Your task to perform on an android device: open a bookmark in the chrome app Image 0: 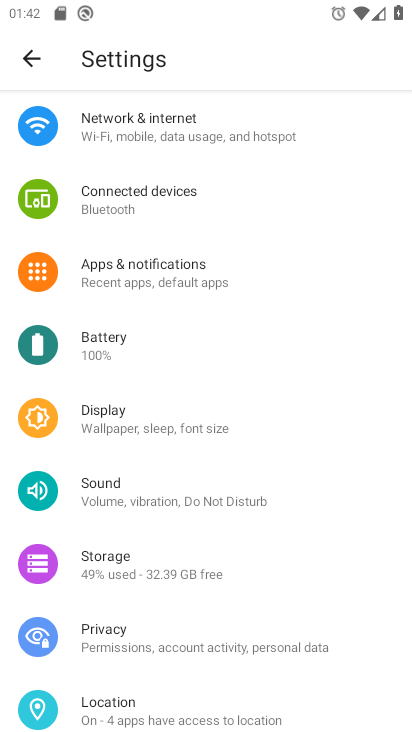
Step 0: press home button
Your task to perform on an android device: open a bookmark in the chrome app Image 1: 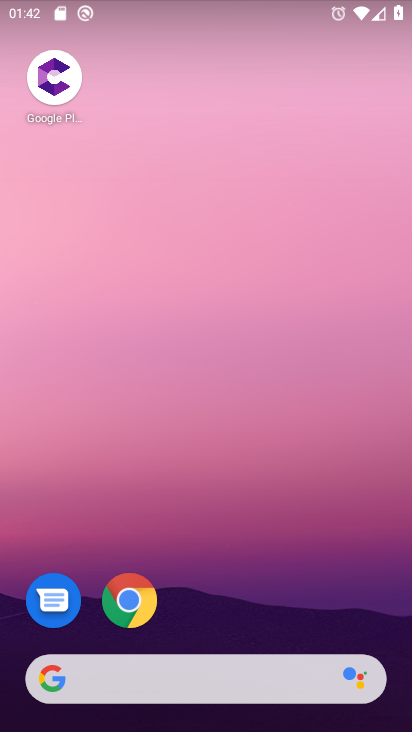
Step 1: click (135, 603)
Your task to perform on an android device: open a bookmark in the chrome app Image 2: 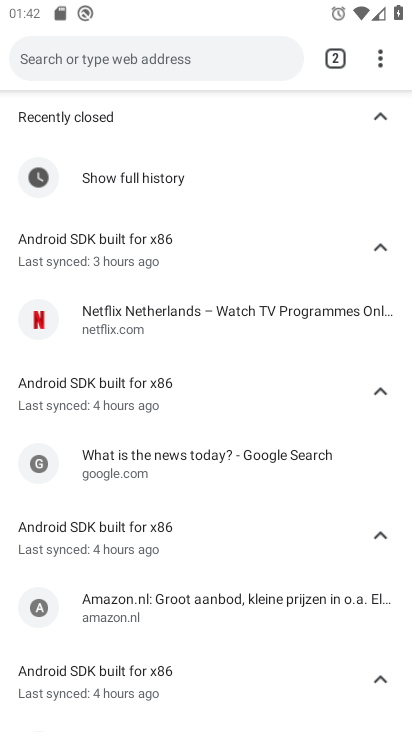
Step 2: click (266, 306)
Your task to perform on an android device: open a bookmark in the chrome app Image 3: 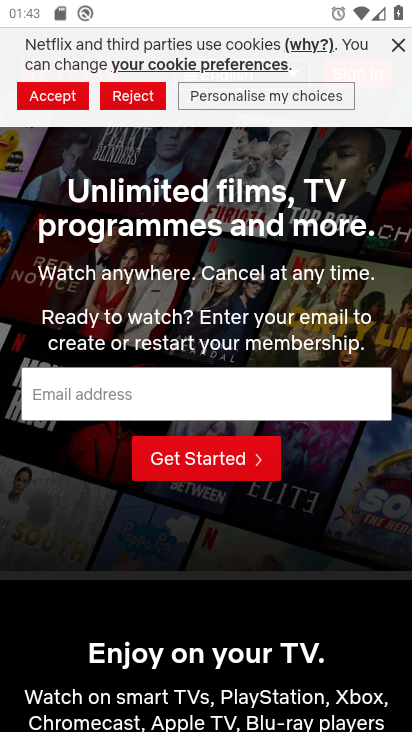
Step 3: task complete